Your task to perform on an android device: What's the weather? Image 0: 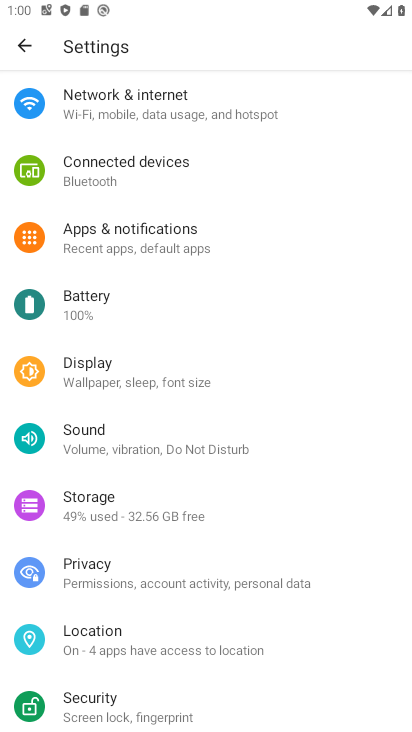
Step 0: press home button
Your task to perform on an android device: What's the weather? Image 1: 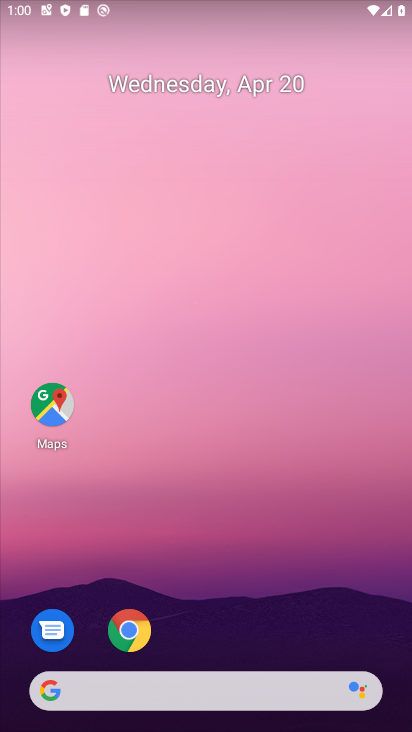
Step 1: drag from (319, 583) to (288, 164)
Your task to perform on an android device: What's the weather? Image 2: 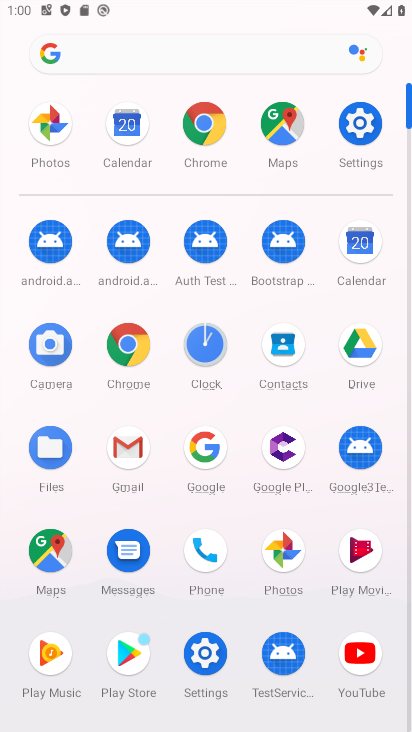
Step 2: click (114, 345)
Your task to perform on an android device: What's the weather? Image 3: 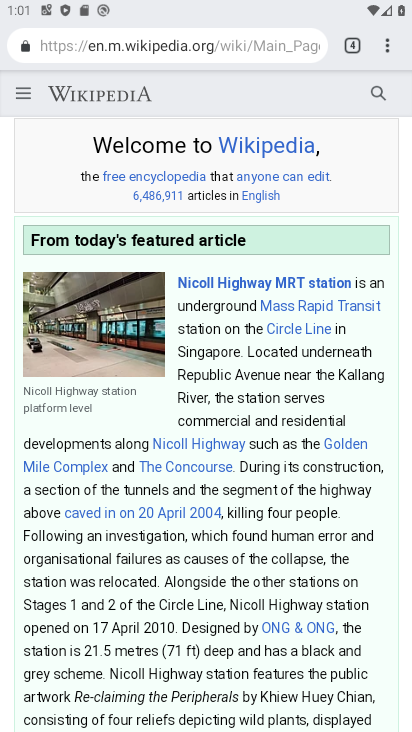
Step 3: click (216, 45)
Your task to perform on an android device: What's the weather? Image 4: 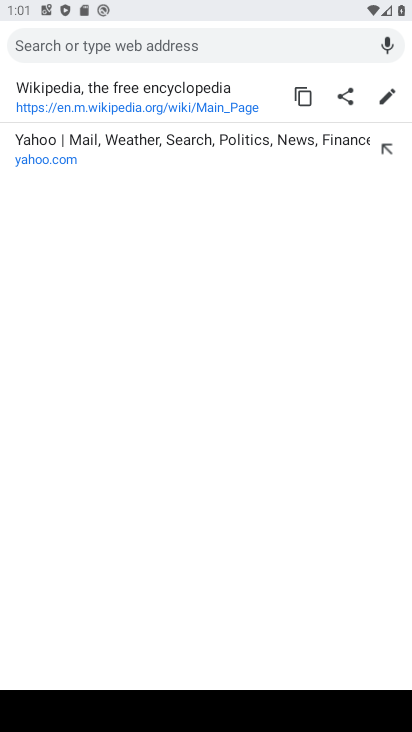
Step 4: type "weather"
Your task to perform on an android device: What's the weather? Image 5: 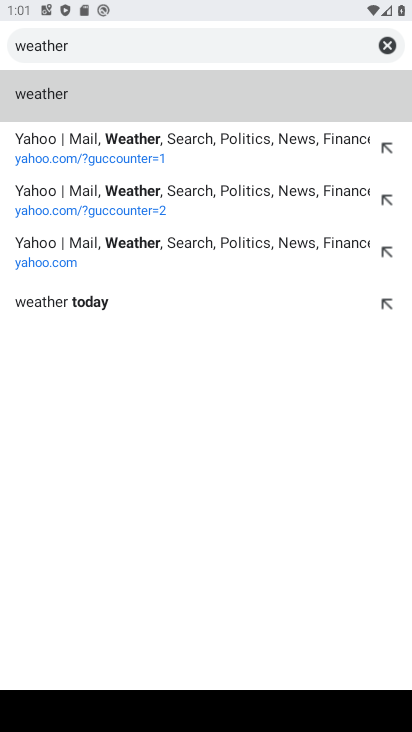
Step 5: click (44, 83)
Your task to perform on an android device: What's the weather? Image 6: 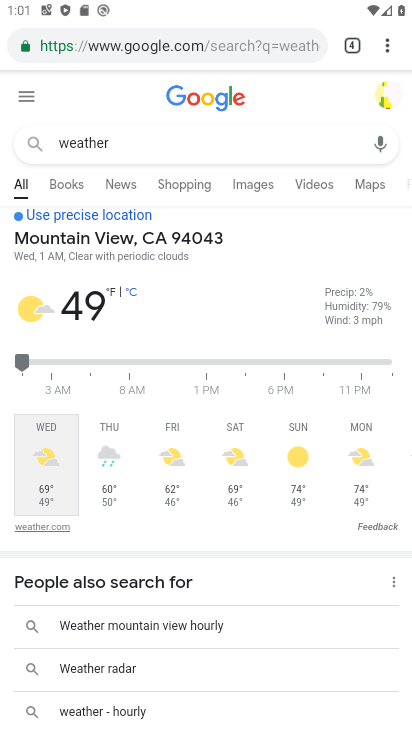
Step 6: task complete